Your task to perform on an android device: See recent photos Image 0: 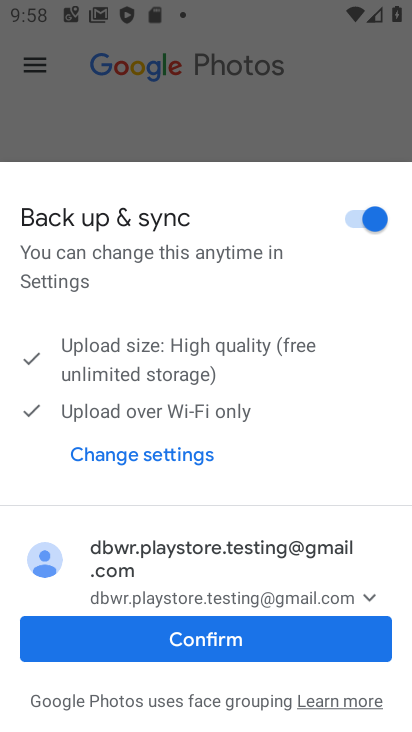
Step 0: click (214, 662)
Your task to perform on an android device: See recent photos Image 1: 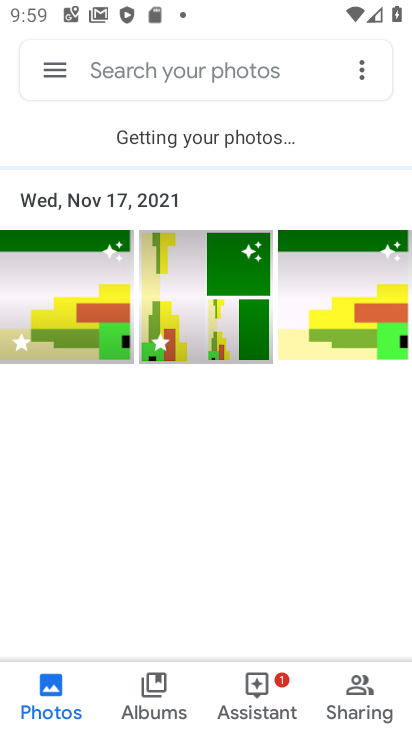
Step 1: task complete